Your task to perform on an android device: move an email to a new category in the gmail app Image 0: 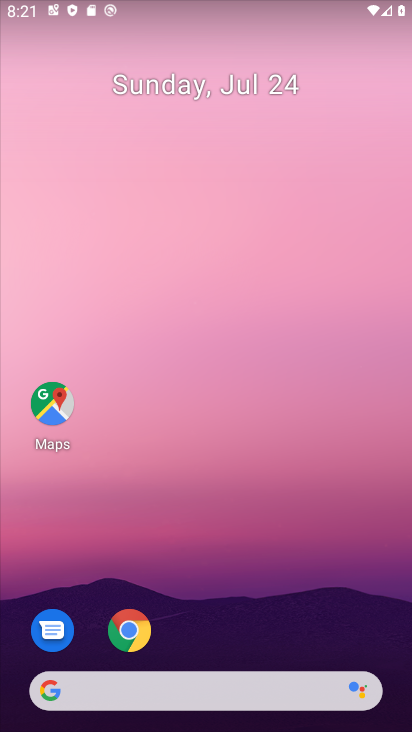
Step 0: drag from (217, 615) to (137, 184)
Your task to perform on an android device: move an email to a new category in the gmail app Image 1: 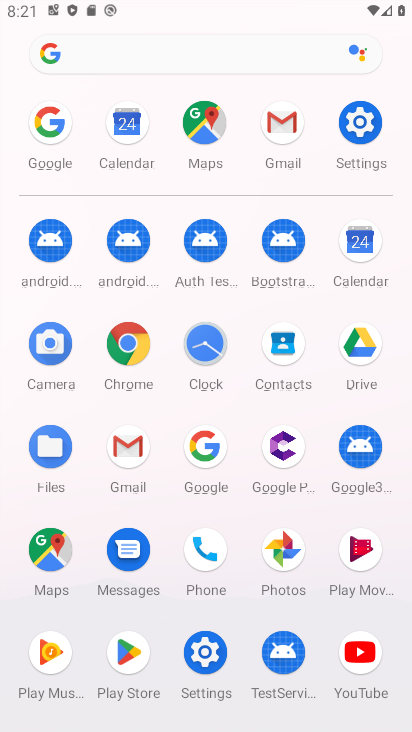
Step 1: click (267, 144)
Your task to perform on an android device: move an email to a new category in the gmail app Image 2: 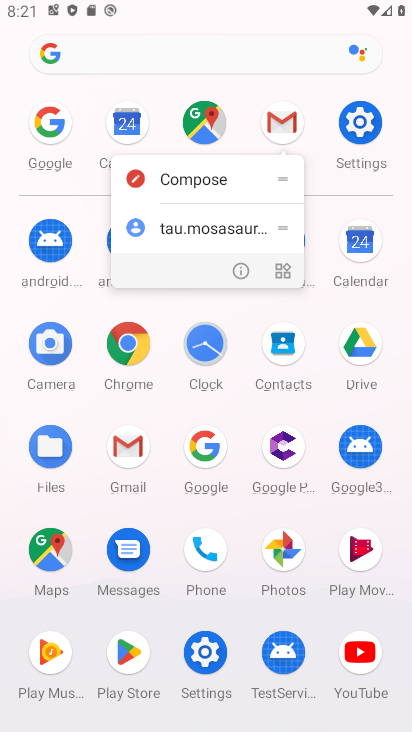
Step 2: click (275, 126)
Your task to perform on an android device: move an email to a new category in the gmail app Image 3: 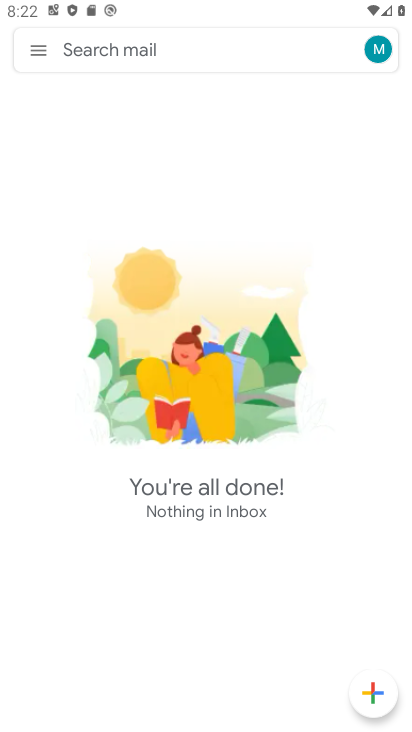
Step 3: task complete